Your task to perform on an android device: toggle improve location accuracy Image 0: 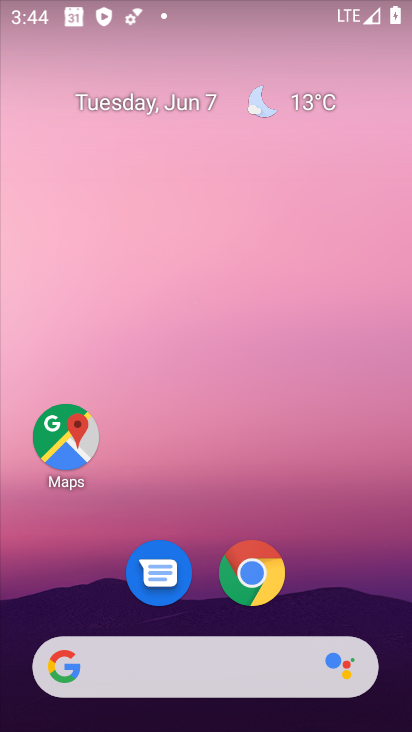
Step 0: drag from (378, 598) to (296, 228)
Your task to perform on an android device: toggle improve location accuracy Image 1: 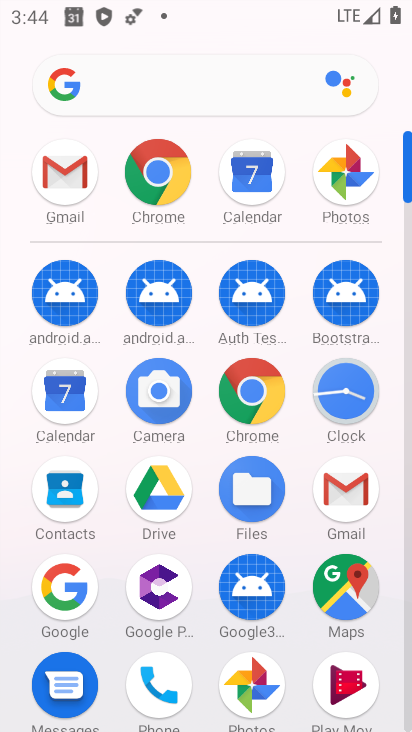
Step 1: click (411, 590)
Your task to perform on an android device: toggle improve location accuracy Image 2: 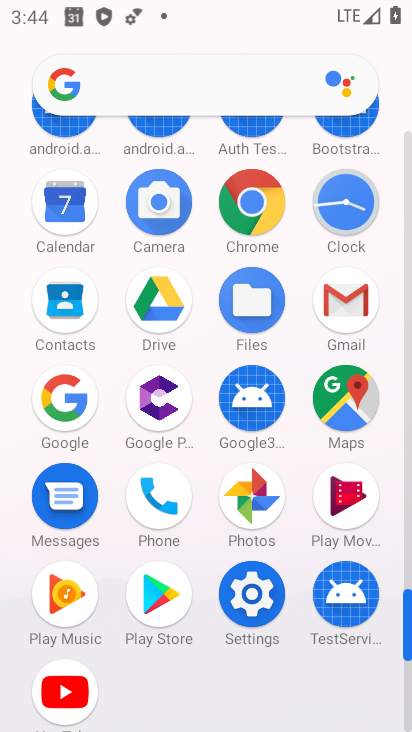
Step 2: click (247, 599)
Your task to perform on an android device: toggle improve location accuracy Image 3: 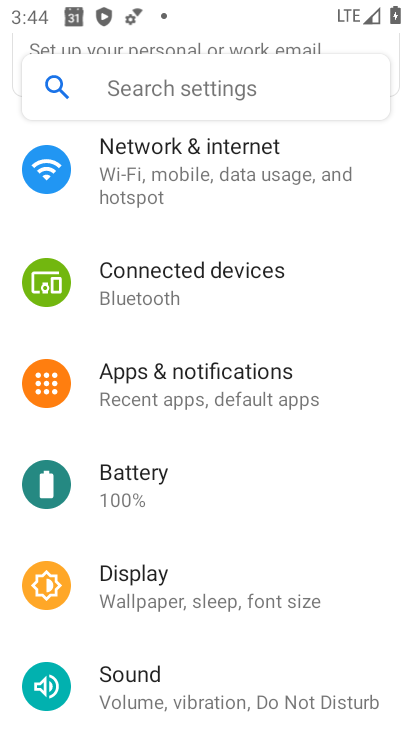
Step 3: drag from (273, 604) to (229, 146)
Your task to perform on an android device: toggle improve location accuracy Image 4: 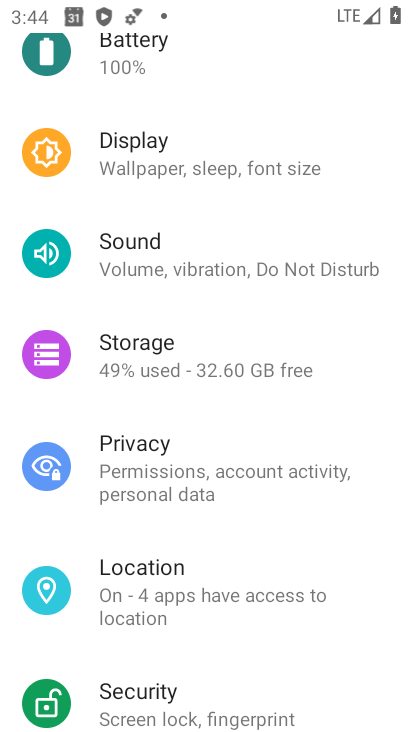
Step 4: click (243, 599)
Your task to perform on an android device: toggle improve location accuracy Image 5: 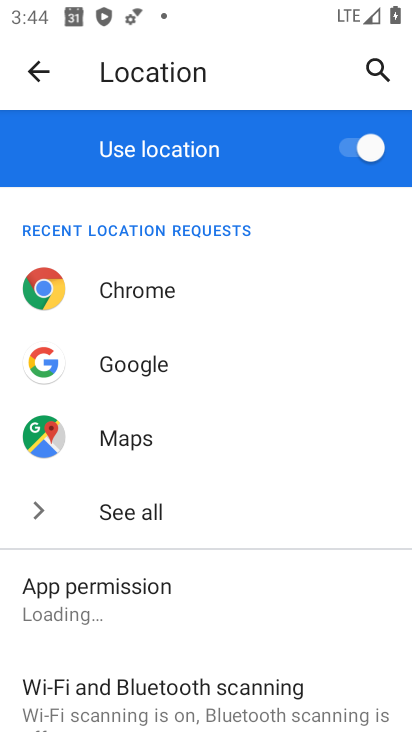
Step 5: drag from (271, 633) to (244, 291)
Your task to perform on an android device: toggle improve location accuracy Image 6: 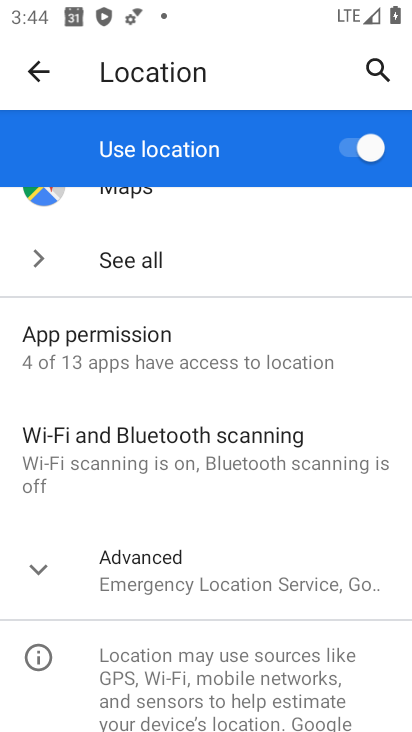
Step 6: click (287, 576)
Your task to perform on an android device: toggle improve location accuracy Image 7: 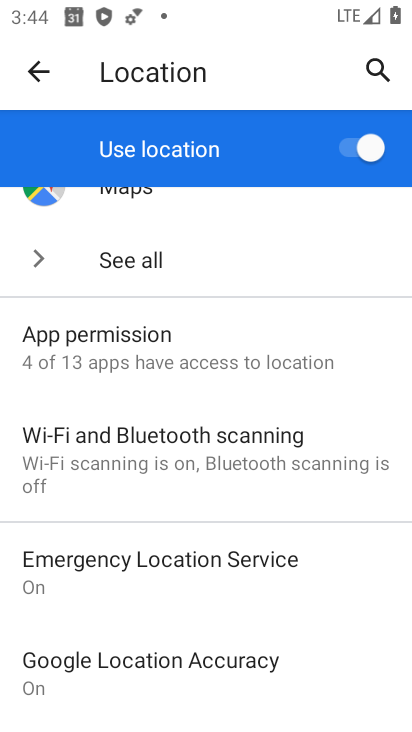
Step 7: drag from (299, 610) to (215, 295)
Your task to perform on an android device: toggle improve location accuracy Image 8: 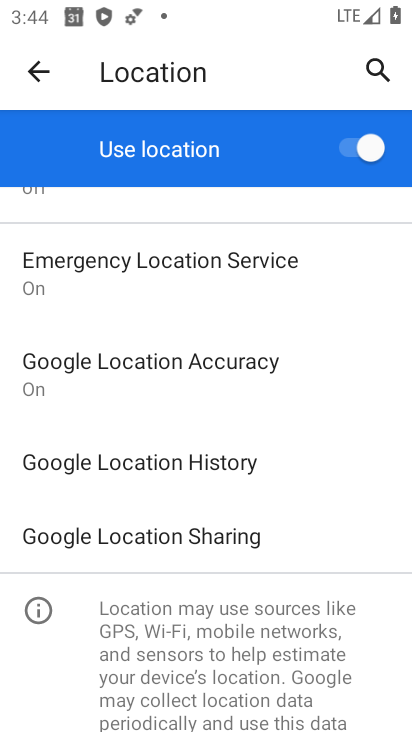
Step 8: click (238, 378)
Your task to perform on an android device: toggle improve location accuracy Image 9: 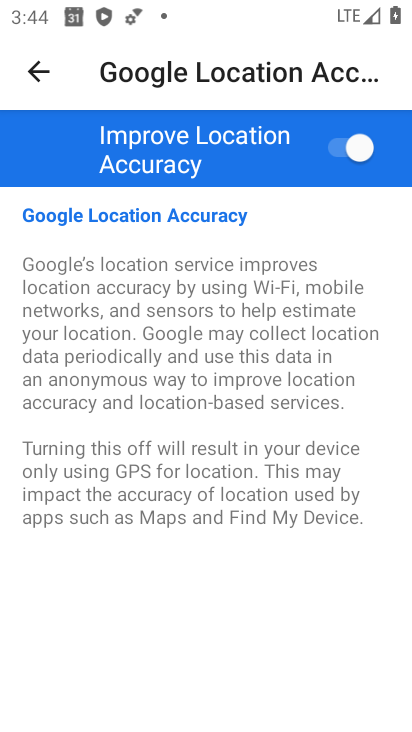
Step 9: click (332, 166)
Your task to perform on an android device: toggle improve location accuracy Image 10: 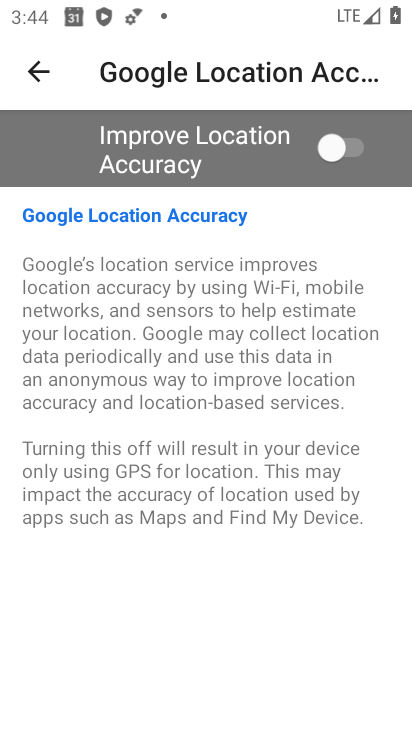
Step 10: task complete